Your task to perform on an android device: What's the weather going to be this weekend? Image 0: 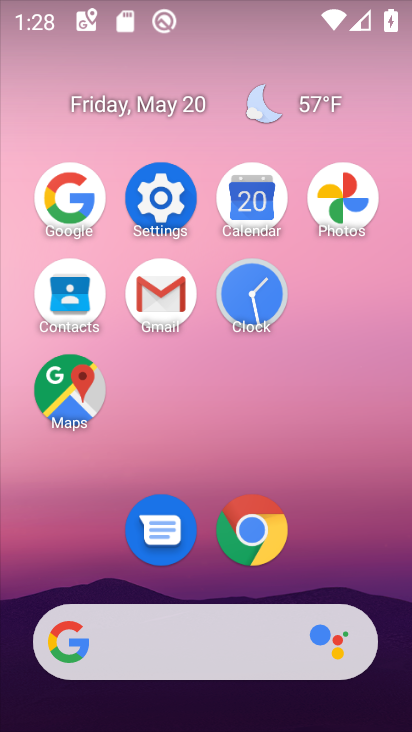
Step 0: click (60, 199)
Your task to perform on an android device: What's the weather going to be this weekend? Image 1: 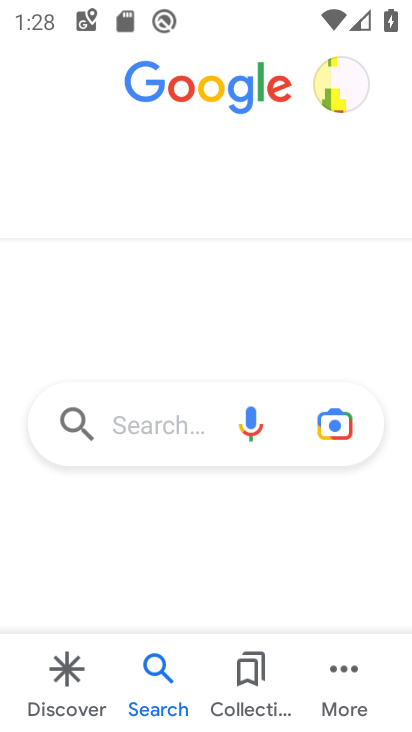
Step 1: click (189, 423)
Your task to perform on an android device: What's the weather going to be this weekend? Image 2: 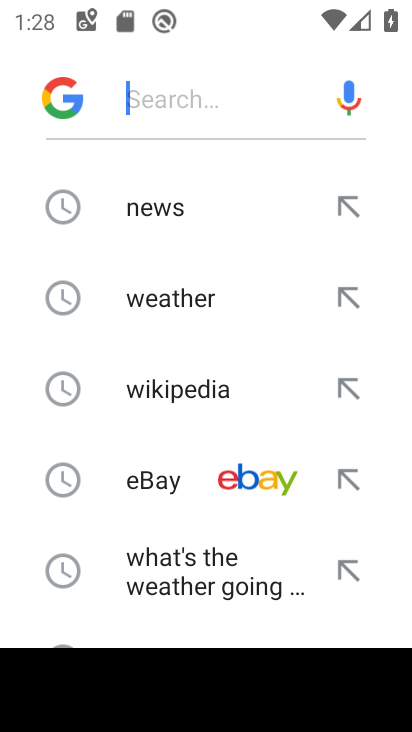
Step 2: click (180, 316)
Your task to perform on an android device: What's the weather going to be this weekend? Image 3: 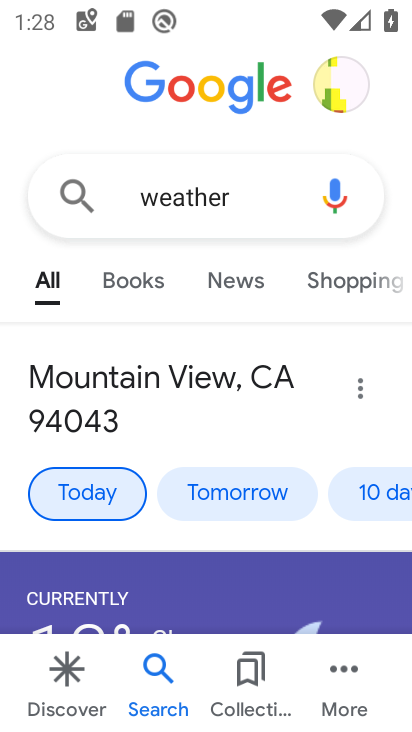
Step 3: click (284, 484)
Your task to perform on an android device: What's the weather going to be this weekend? Image 4: 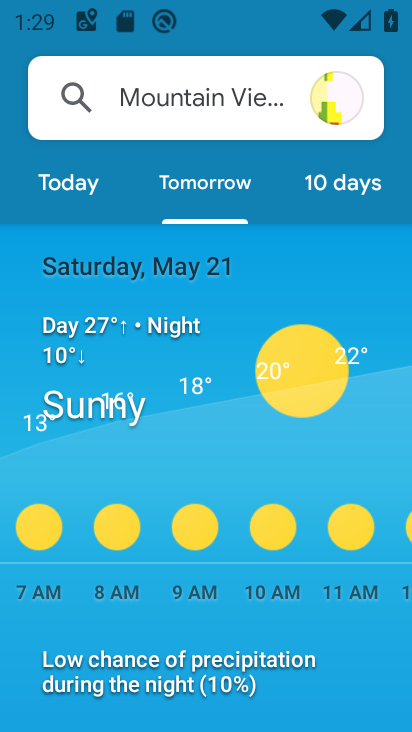
Step 4: task complete